Your task to perform on an android device: open app "Duolingo: language lessons" (install if not already installed) Image 0: 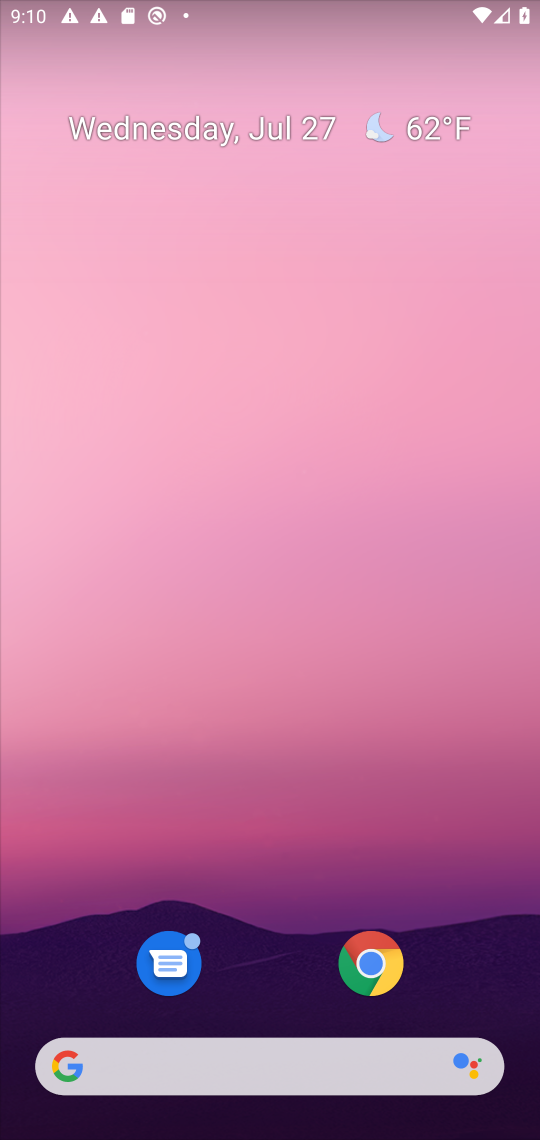
Step 0: drag from (282, 903) to (265, 118)
Your task to perform on an android device: open app "Duolingo: language lessons" (install if not already installed) Image 1: 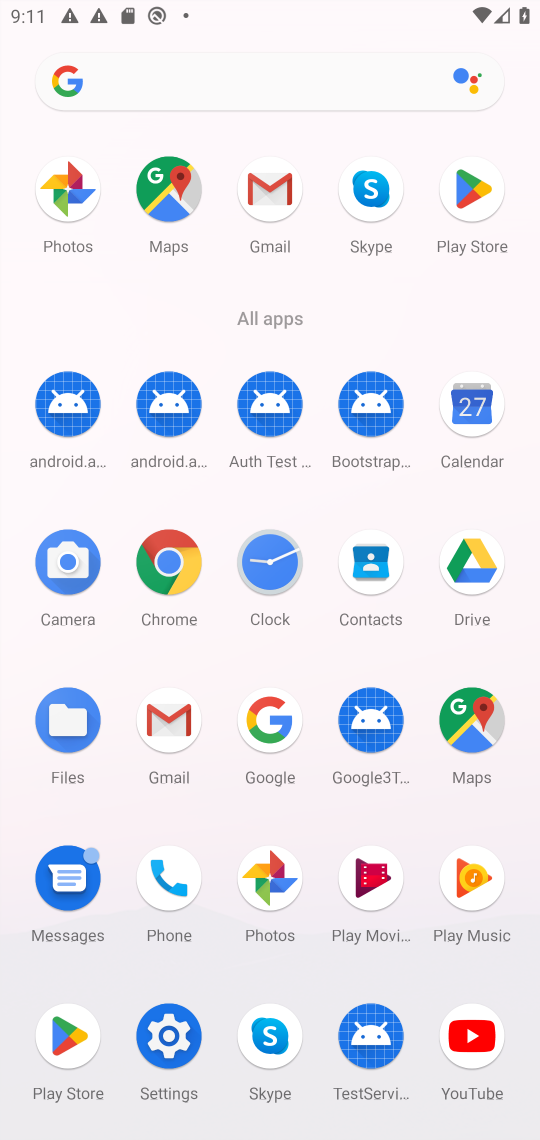
Step 1: click (482, 196)
Your task to perform on an android device: open app "Duolingo: language lessons" (install if not already installed) Image 2: 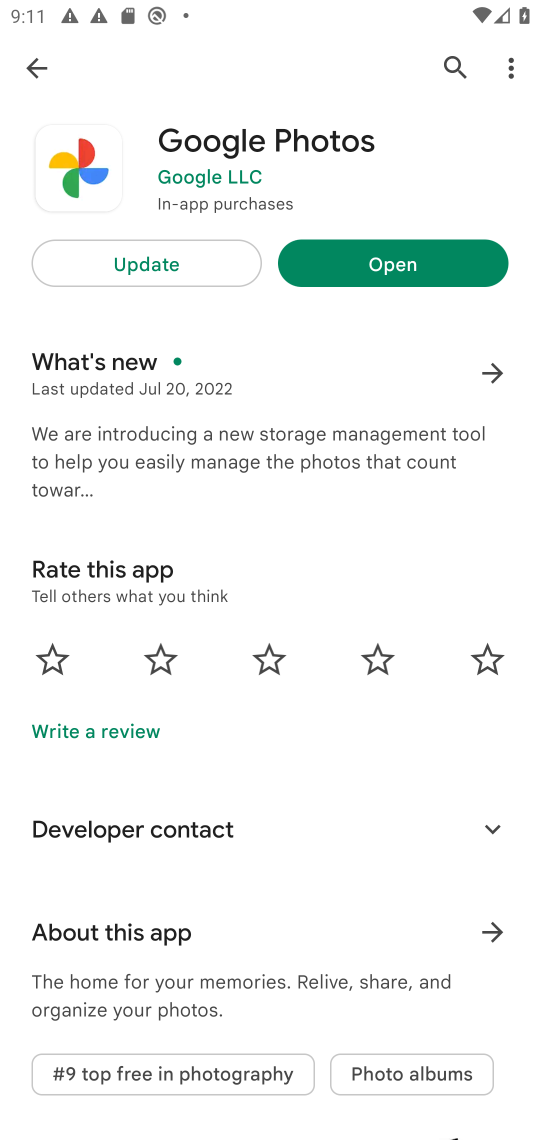
Step 2: click (36, 66)
Your task to perform on an android device: open app "Duolingo: language lessons" (install if not already installed) Image 3: 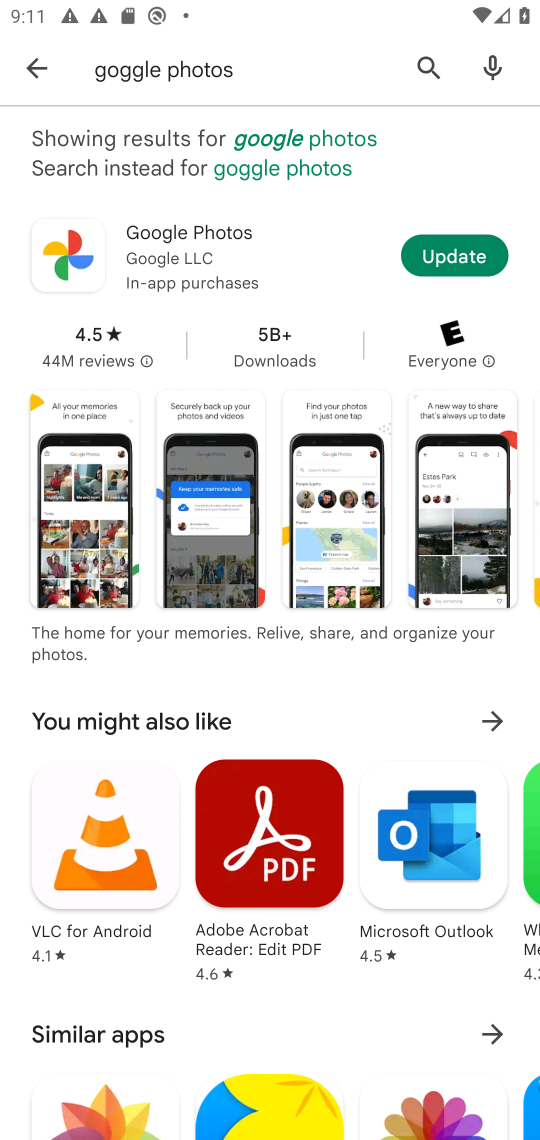
Step 3: click (423, 66)
Your task to perform on an android device: open app "Duolingo: language lessons" (install if not already installed) Image 4: 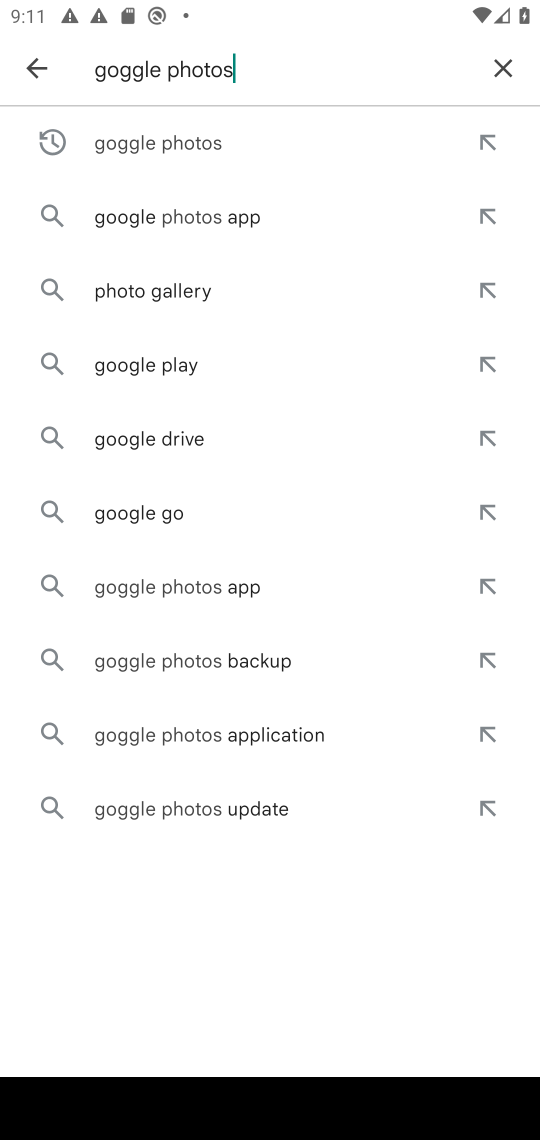
Step 4: click (501, 62)
Your task to perform on an android device: open app "Duolingo: language lessons" (install if not already installed) Image 5: 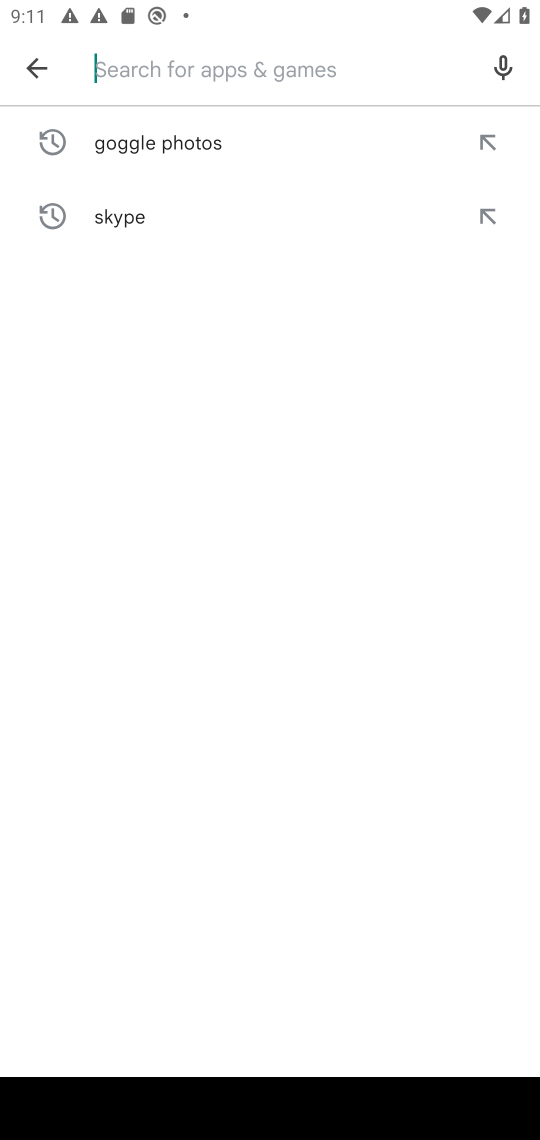
Step 5: click (250, 62)
Your task to perform on an android device: open app "Duolingo: language lessons" (install if not already installed) Image 6: 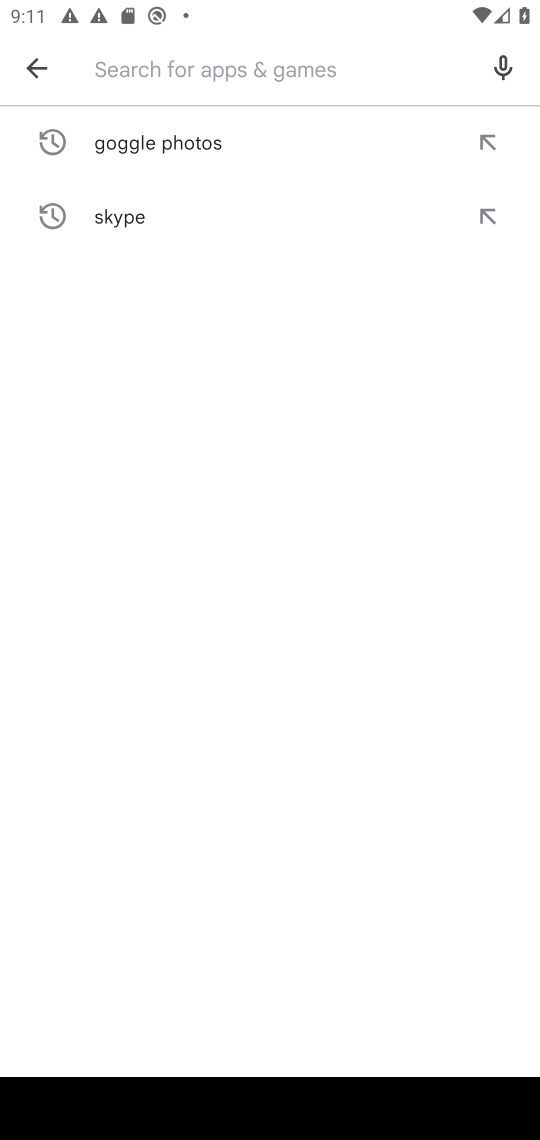
Step 6: type "duolingo"
Your task to perform on an android device: open app "Duolingo: language lessons" (install if not already installed) Image 7: 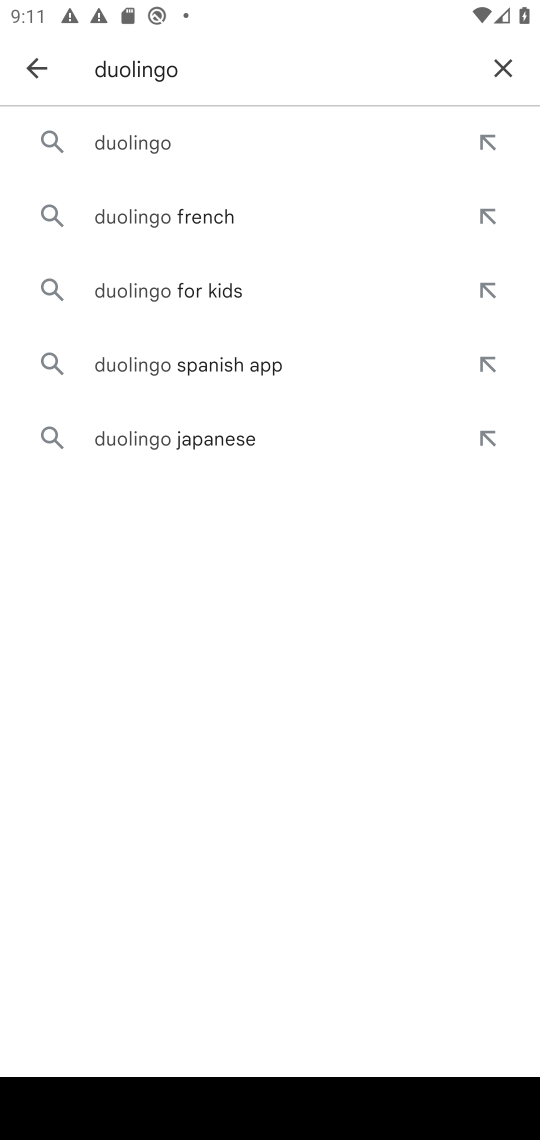
Step 7: click (184, 145)
Your task to perform on an android device: open app "Duolingo: language lessons" (install if not already installed) Image 8: 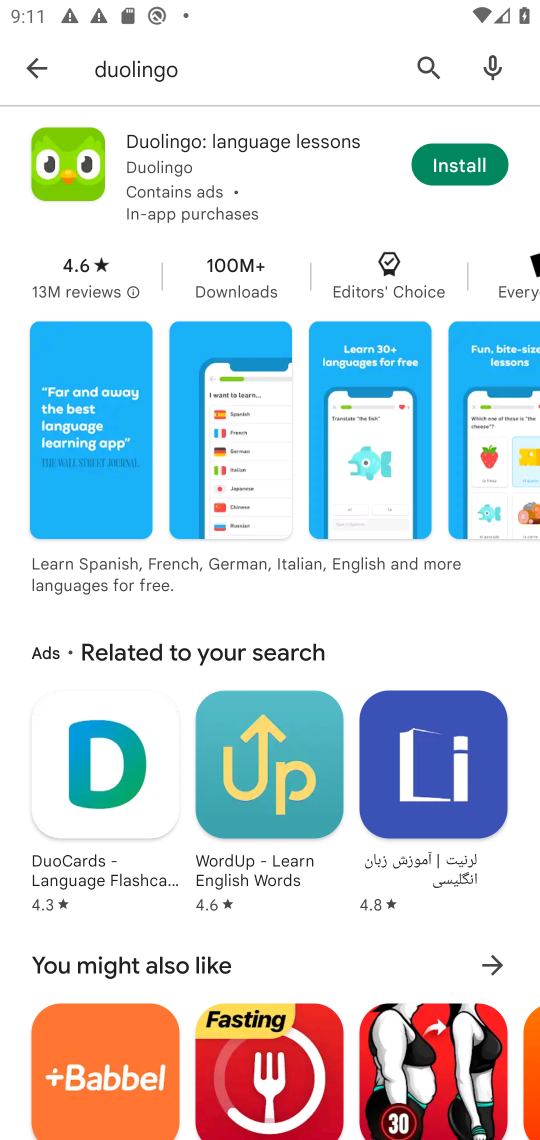
Step 8: click (456, 168)
Your task to perform on an android device: open app "Duolingo: language lessons" (install if not already installed) Image 9: 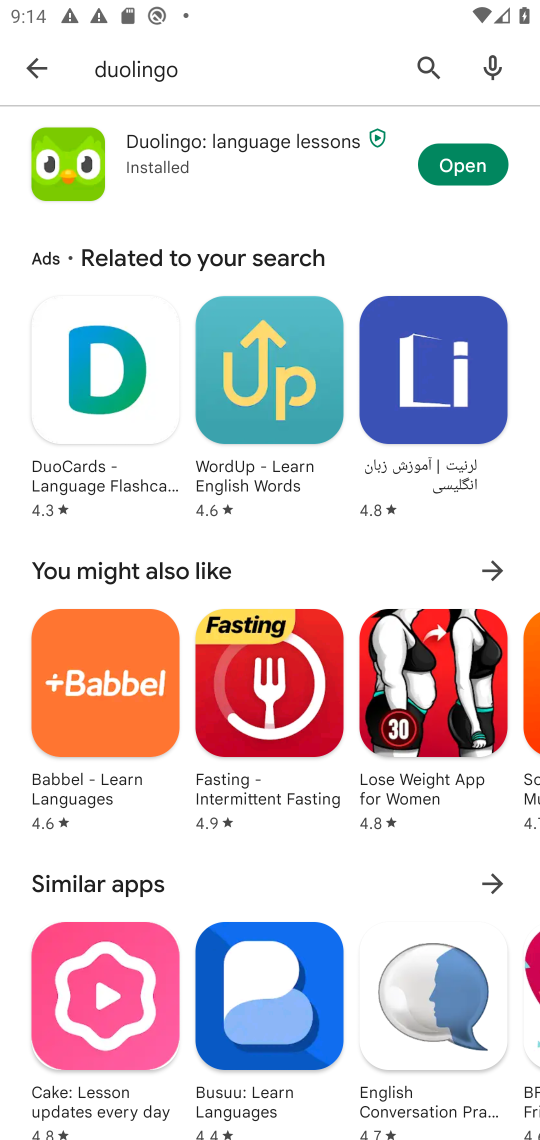
Step 9: click (456, 164)
Your task to perform on an android device: open app "Duolingo: language lessons" (install if not already installed) Image 10: 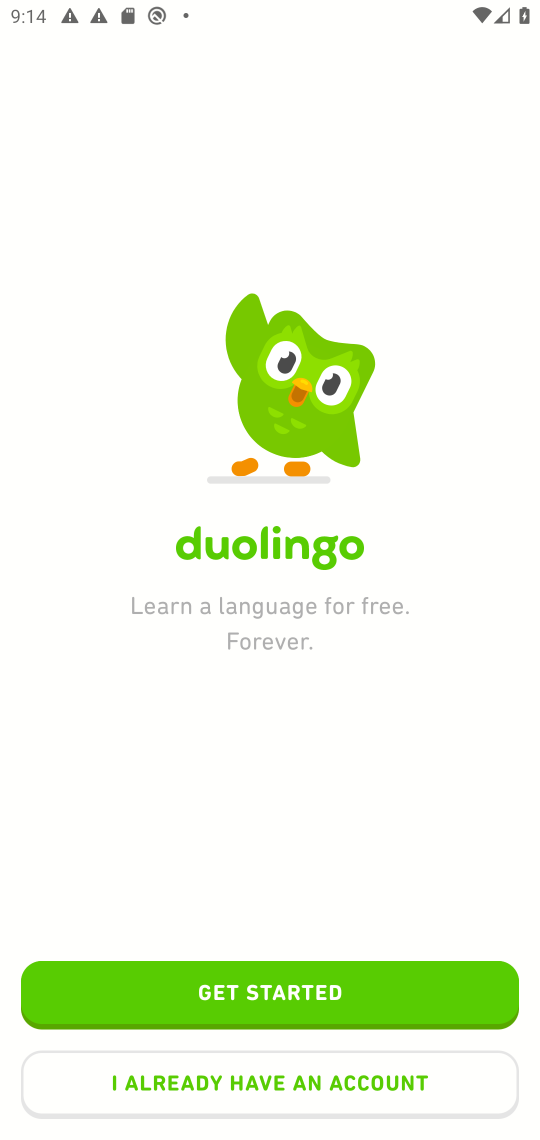
Step 10: task complete